Your task to perform on an android device: delete the emails in spam in the gmail app Image 0: 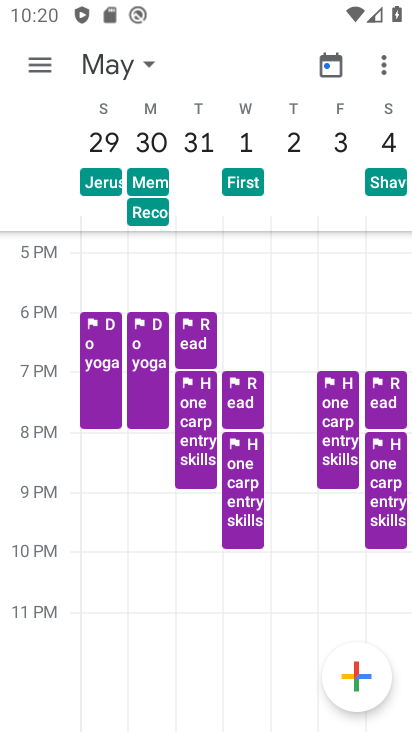
Step 0: press back button
Your task to perform on an android device: delete the emails in spam in the gmail app Image 1: 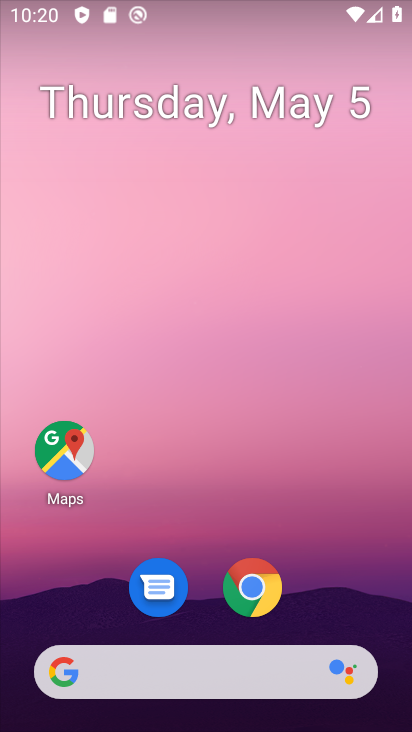
Step 1: drag from (322, 553) to (0, 289)
Your task to perform on an android device: delete the emails in spam in the gmail app Image 2: 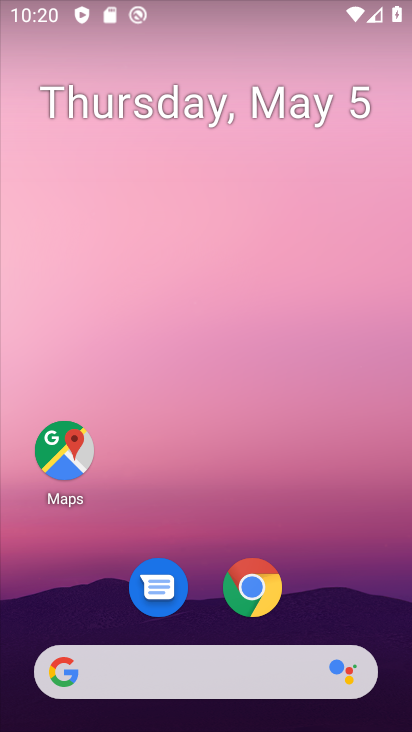
Step 2: drag from (13, 616) to (40, 49)
Your task to perform on an android device: delete the emails in spam in the gmail app Image 3: 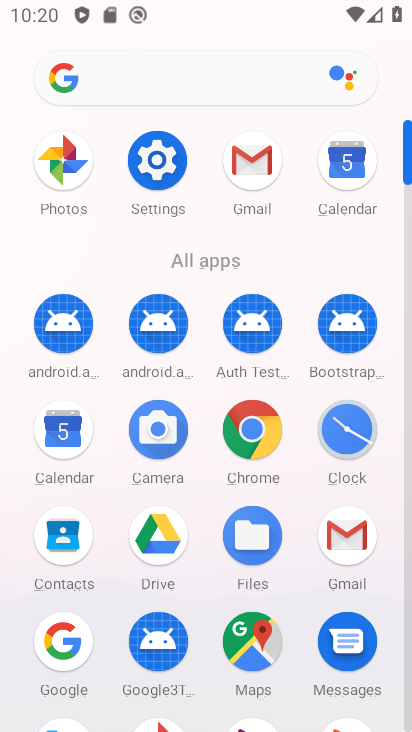
Step 3: click (344, 532)
Your task to perform on an android device: delete the emails in spam in the gmail app Image 4: 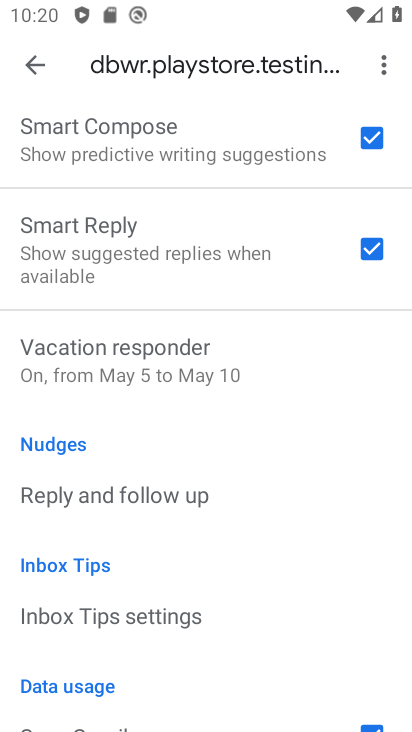
Step 4: click (33, 65)
Your task to perform on an android device: delete the emails in spam in the gmail app Image 5: 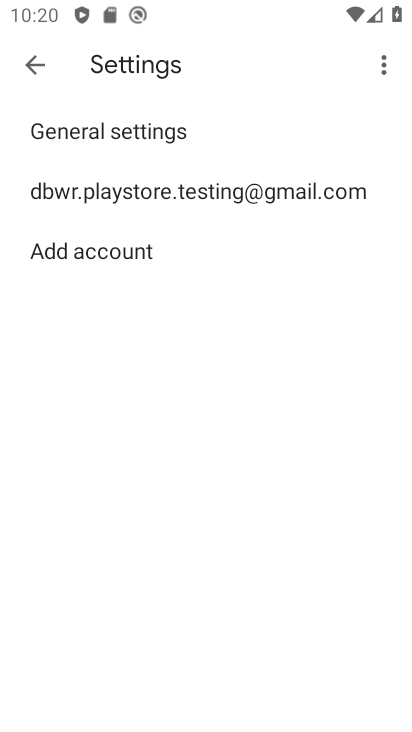
Step 5: click (34, 71)
Your task to perform on an android device: delete the emails in spam in the gmail app Image 6: 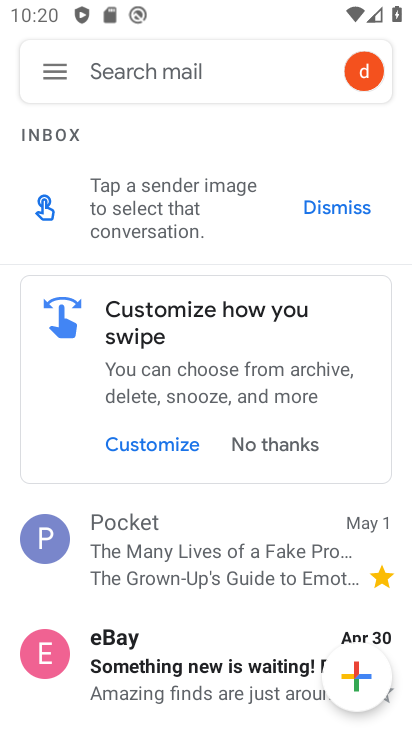
Step 6: click (44, 77)
Your task to perform on an android device: delete the emails in spam in the gmail app Image 7: 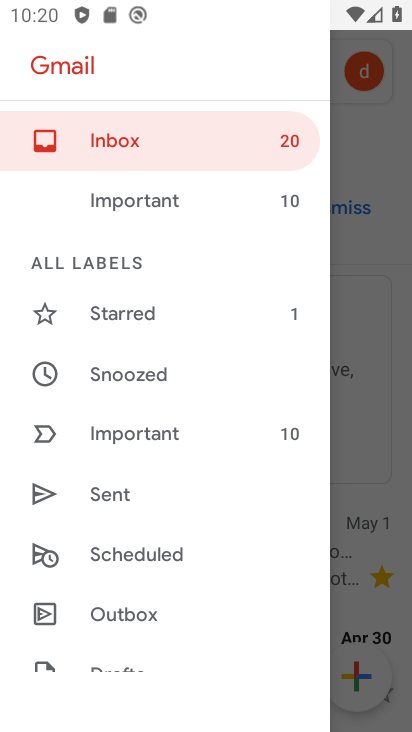
Step 7: drag from (169, 596) to (215, 193)
Your task to perform on an android device: delete the emails in spam in the gmail app Image 8: 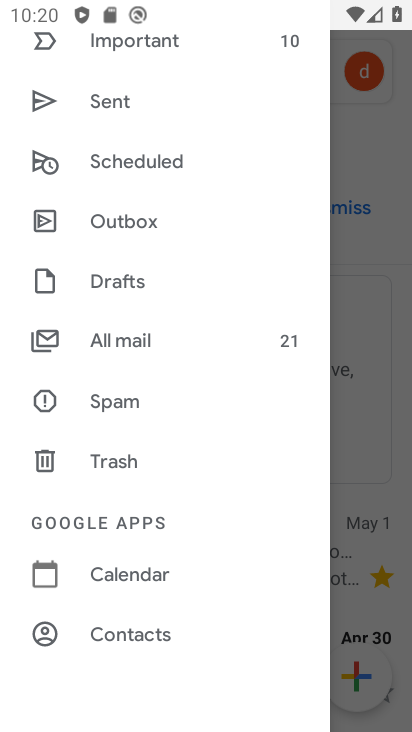
Step 8: click (134, 404)
Your task to perform on an android device: delete the emails in spam in the gmail app Image 9: 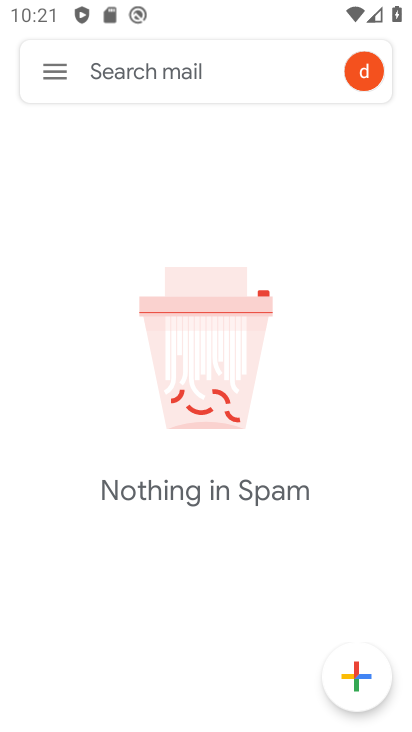
Step 9: task complete